Your task to perform on an android device: Clear the shopping cart on costco.com. Image 0: 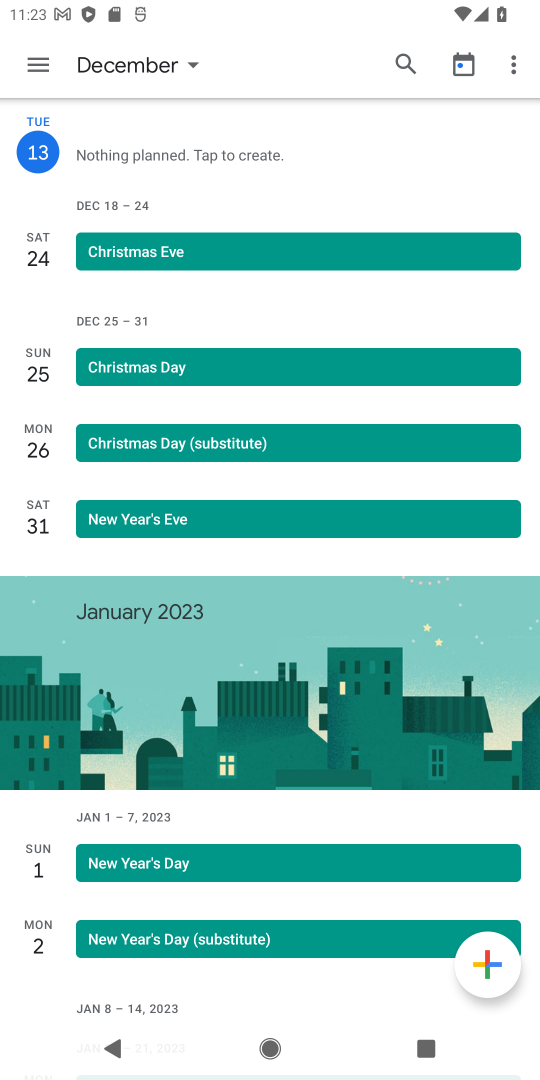
Step 0: press home button
Your task to perform on an android device: Clear the shopping cart on costco.com. Image 1: 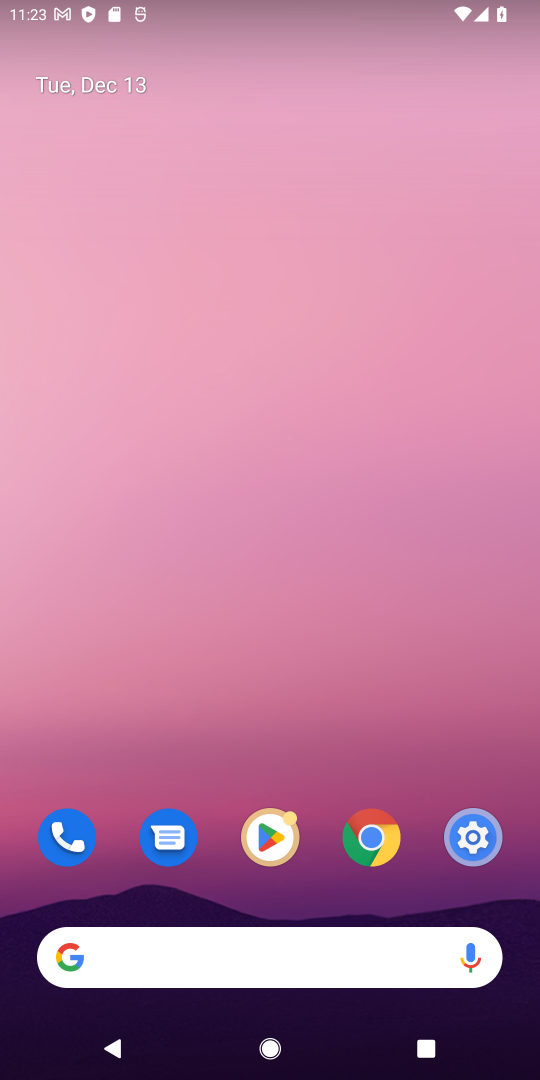
Step 1: click (375, 837)
Your task to perform on an android device: Clear the shopping cart on costco.com. Image 2: 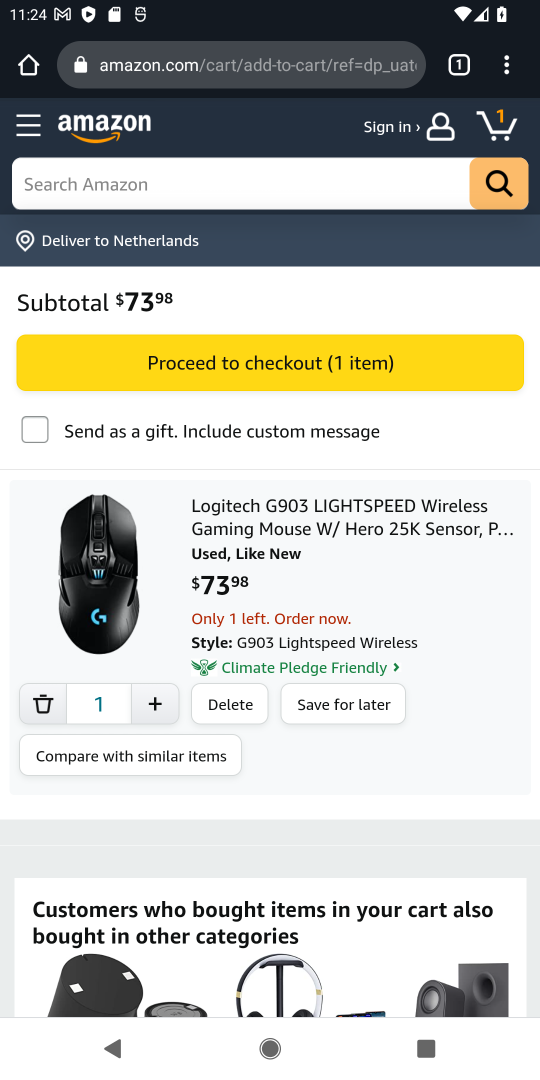
Step 2: click (243, 71)
Your task to perform on an android device: Clear the shopping cart on costco.com. Image 3: 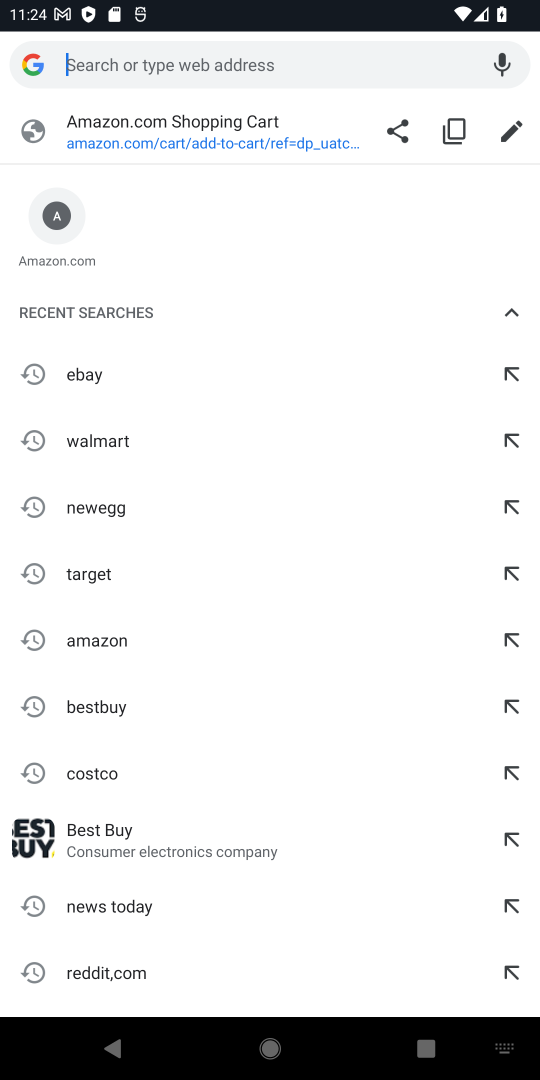
Step 3: click (137, 771)
Your task to perform on an android device: Clear the shopping cart on costco.com. Image 4: 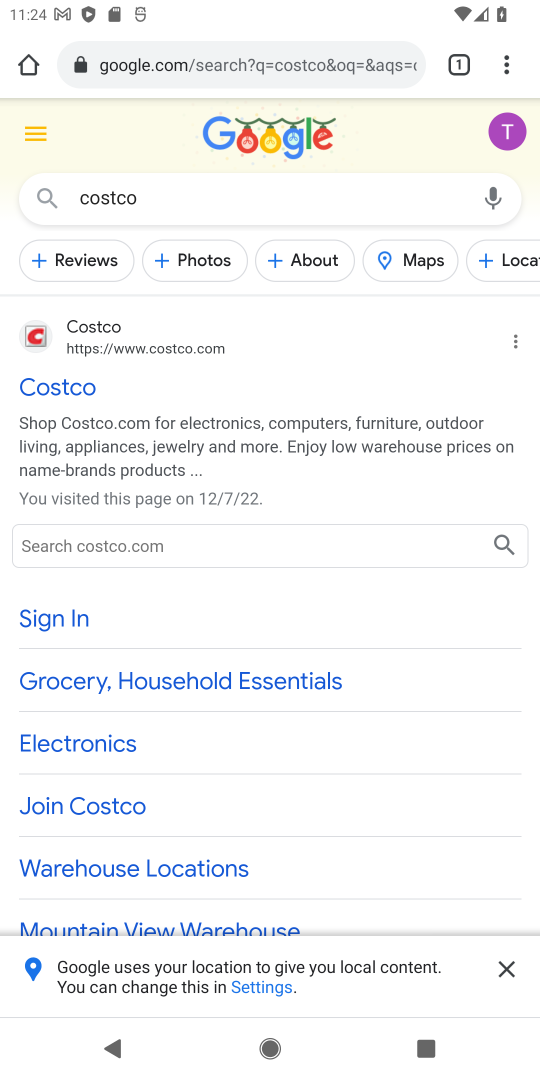
Step 4: click (23, 388)
Your task to perform on an android device: Clear the shopping cart on costco.com. Image 5: 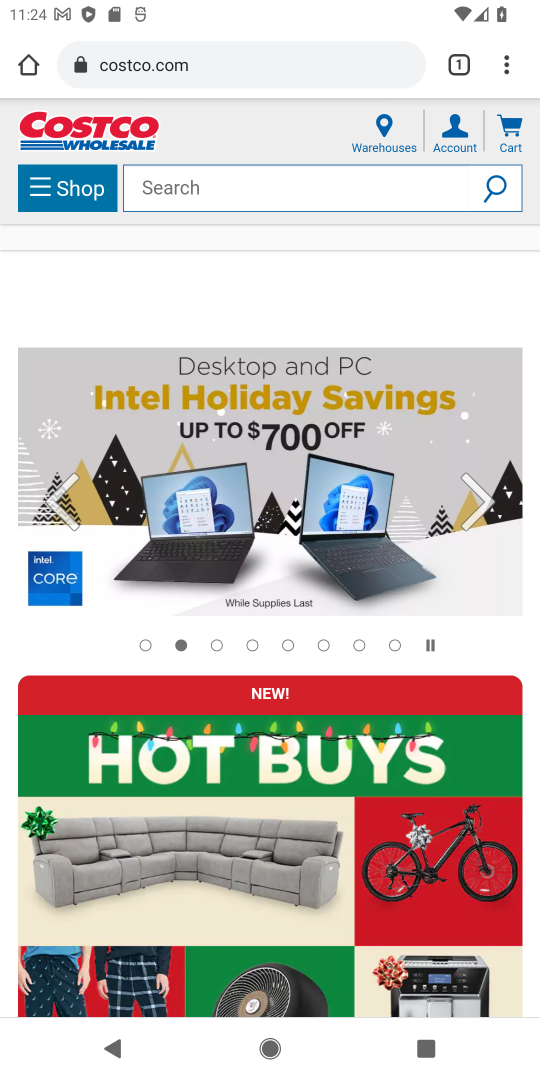
Step 5: click (500, 140)
Your task to perform on an android device: Clear the shopping cart on costco.com. Image 6: 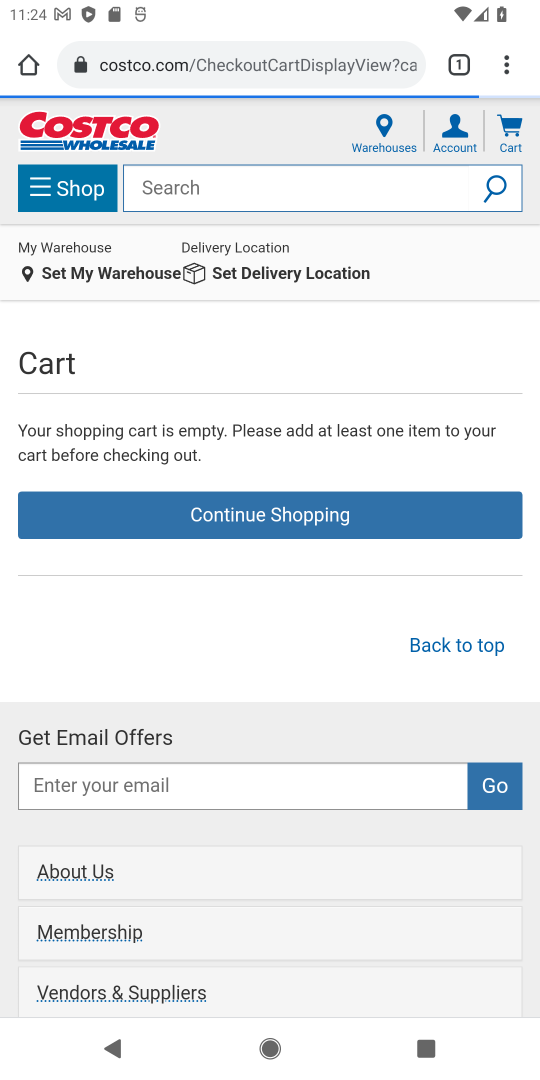
Step 6: task complete